Your task to perform on an android device: turn off location history Image 0: 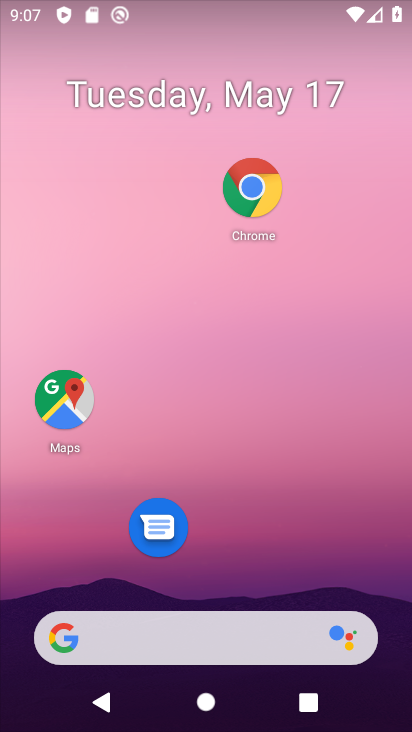
Step 0: drag from (322, 567) to (300, 29)
Your task to perform on an android device: turn off location history Image 1: 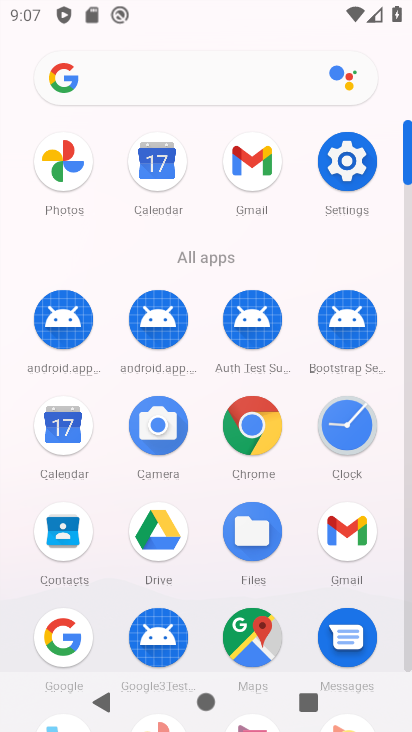
Step 1: click (360, 176)
Your task to perform on an android device: turn off location history Image 2: 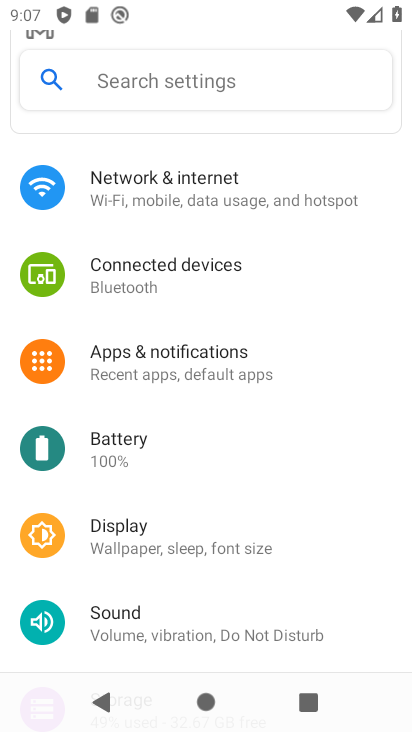
Step 2: drag from (226, 667) to (262, 82)
Your task to perform on an android device: turn off location history Image 3: 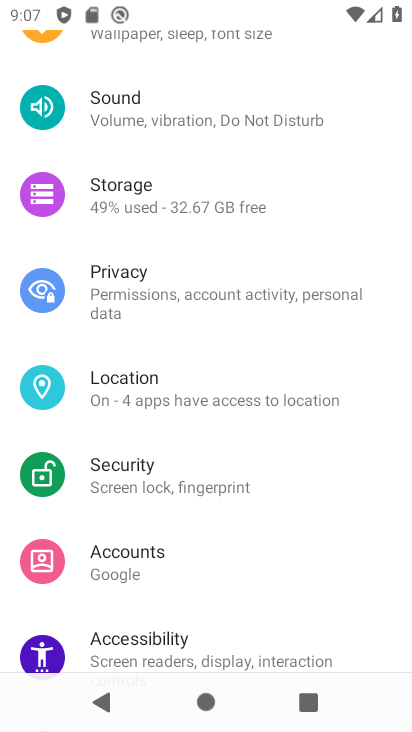
Step 3: click (273, 385)
Your task to perform on an android device: turn off location history Image 4: 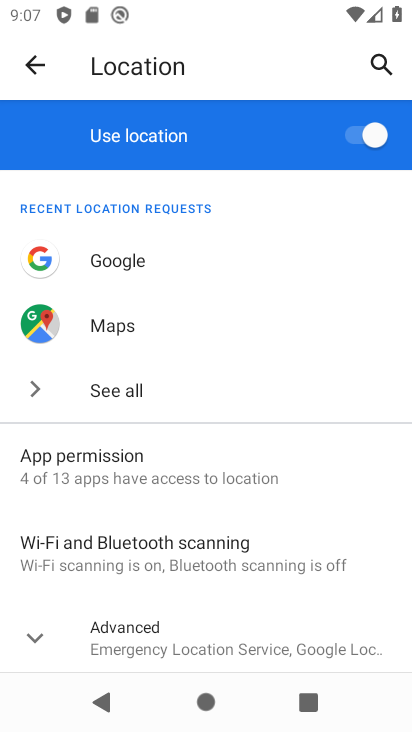
Step 4: click (216, 652)
Your task to perform on an android device: turn off location history Image 5: 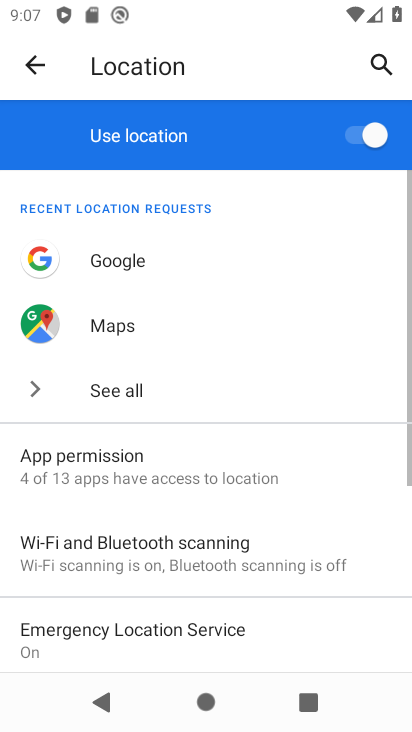
Step 5: drag from (232, 613) to (262, 248)
Your task to perform on an android device: turn off location history Image 6: 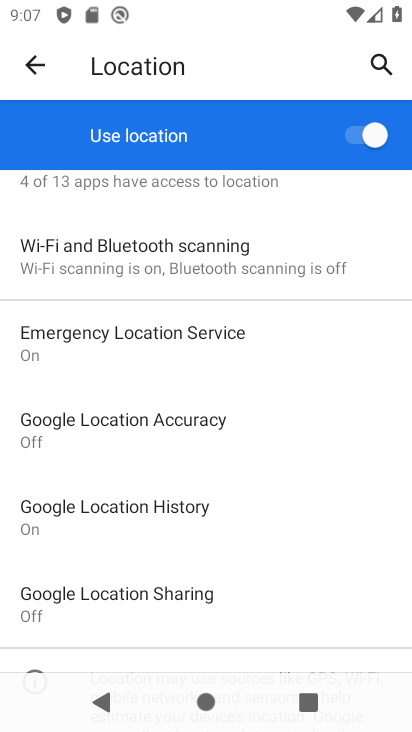
Step 6: click (256, 501)
Your task to perform on an android device: turn off location history Image 7: 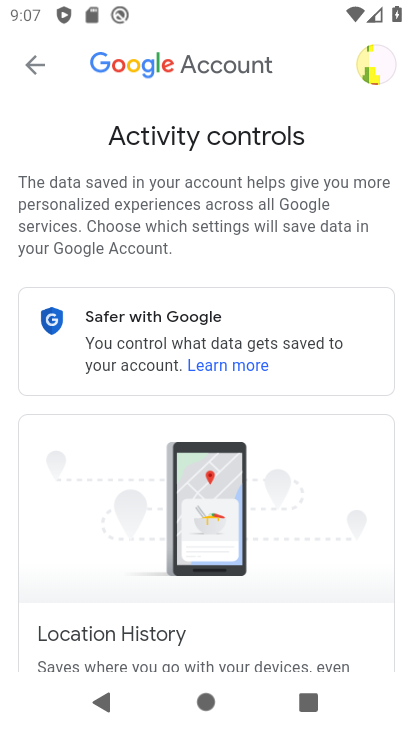
Step 7: drag from (272, 444) to (302, 125)
Your task to perform on an android device: turn off location history Image 8: 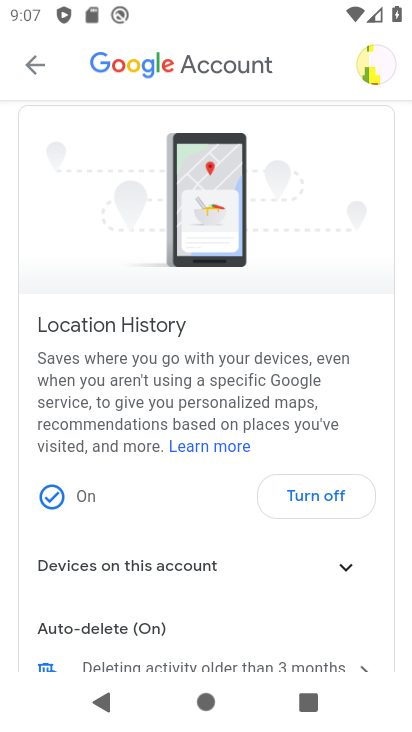
Step 8: click (353, 511)
Your task to perform on an android device: turn off location history Image 9: 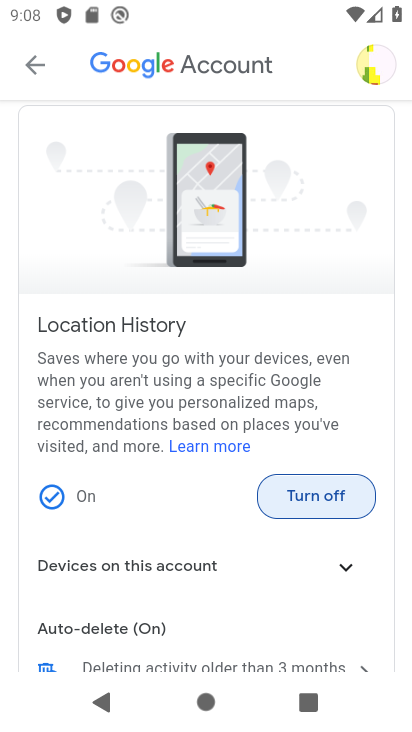
Step 9: click (278, 484)
Your task to perform on an android device: turn off location history Image 10: 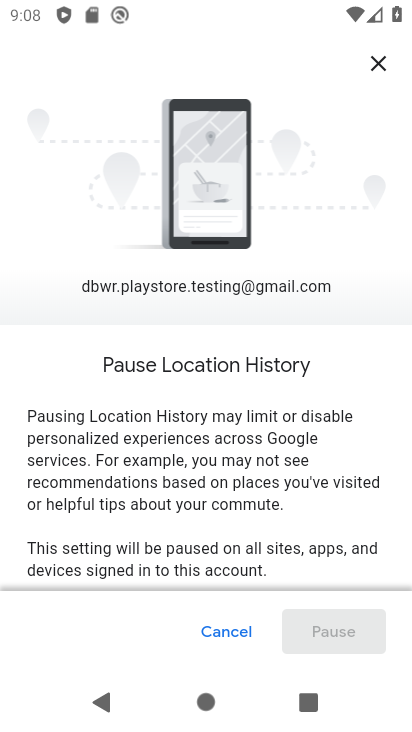
Step 10: drag from (321, 503) to (339, 104)
Your task to perform on an android device: turn off location history Image 11: 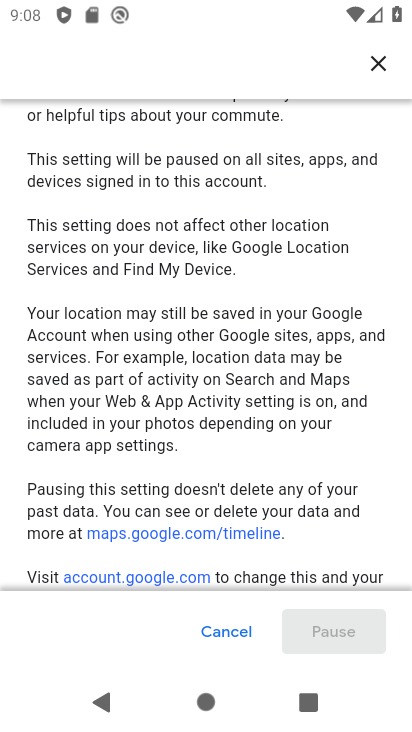
Step 11: drag from (317, 489) to (309, 106)
Your task to perform on an android device: turn off location history Image 12: 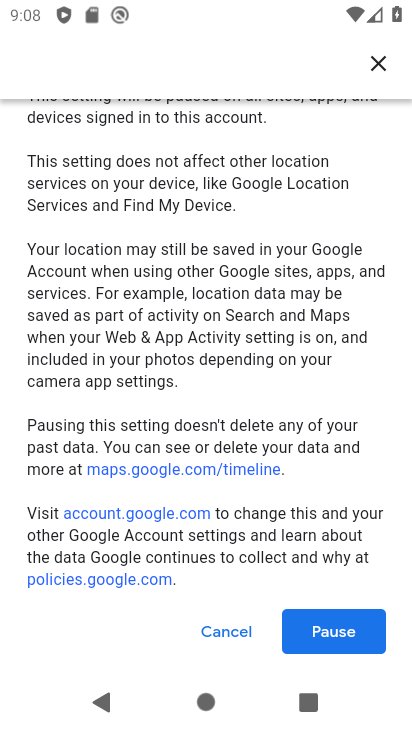
Step 12: click (334, 621)
Your task to perform on an android device: turn off location history Image 13: 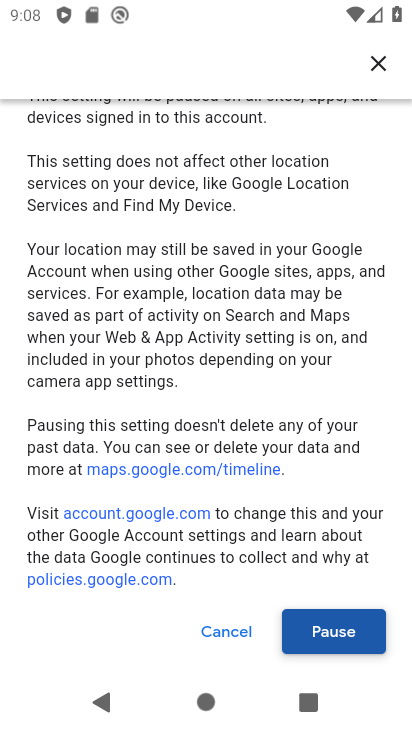
Step 13: task complete